Your task to perform on an android device: read, delete, or share a saved page in the chrome app Image 0: 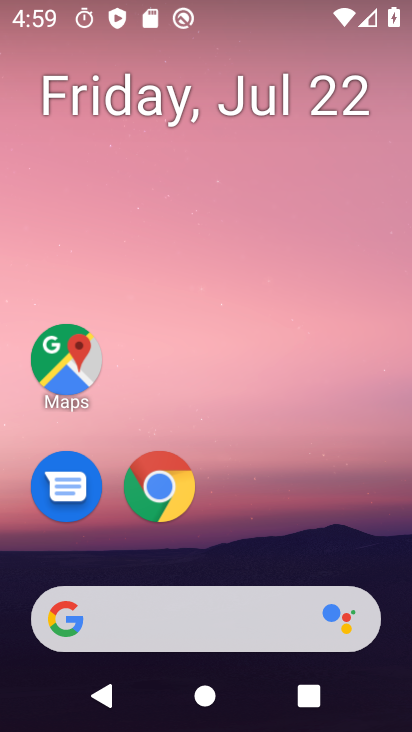
Step 0: drag from (380, 558) to (301, 129)
Your task to perform on an android device: read, delete, or share a saved page in the chrome app Image 1: 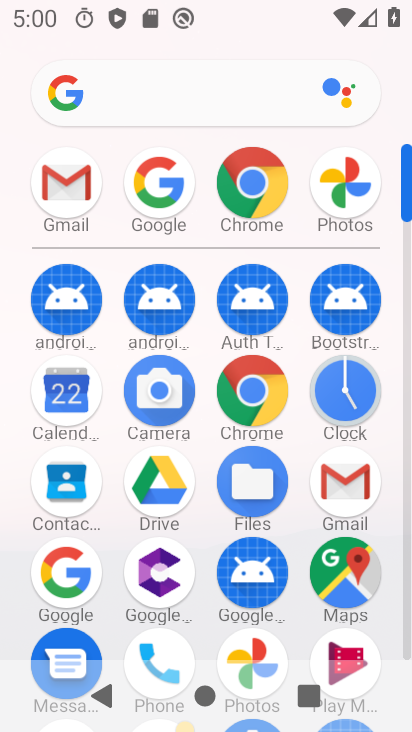
Step 1: click (272, 192)
Your task to perform on an android device: read, delete, or share a saved page in the chrome app Image 2: 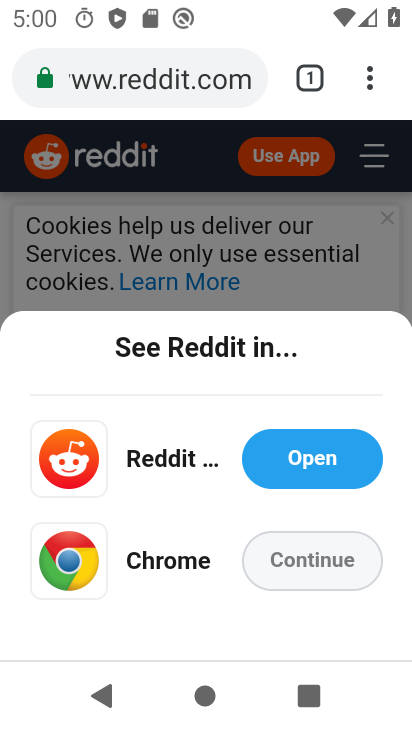
Step 2: click (366, 86)
Your task to perform on an android device: read, delete, or share a saved page in the chrome app Image 3: 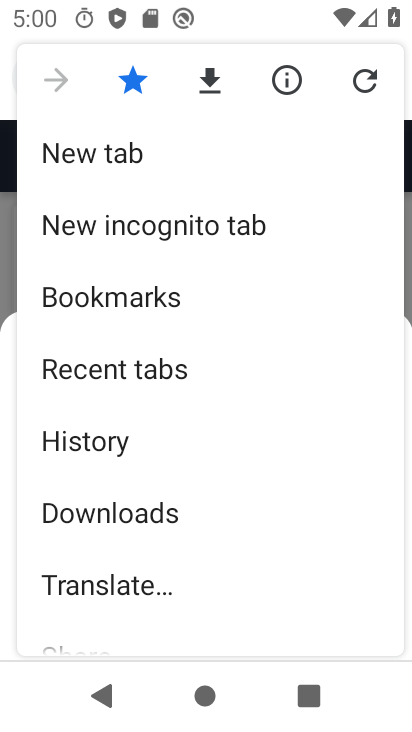
Step 3: click (118, 511)
Your task to perform on an android device: read, delete, or share a saved page in the chrome app Image 4: 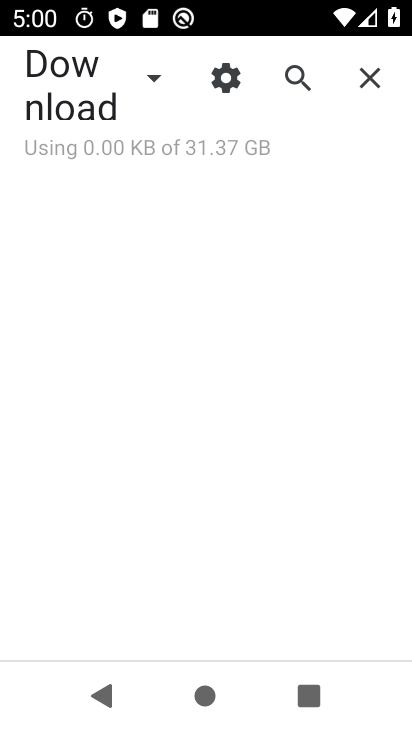
Step 4: click (152, 80)
Your task to perform on an android device: read, delete, or share a saved page in the chrome app Image 5: 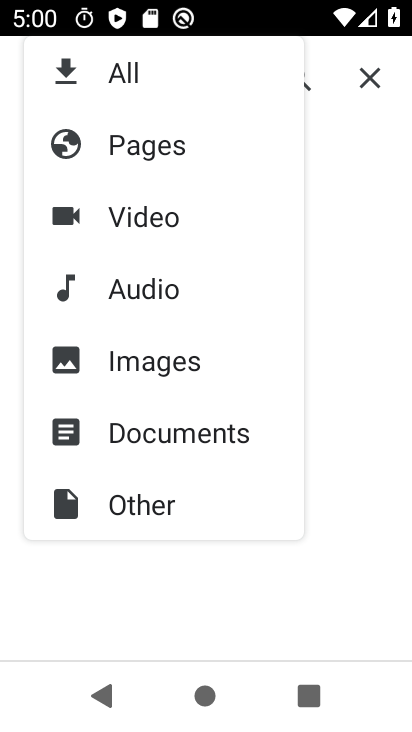
Step 5: click (180, 142)
Your task to perform on an android device: read, delete, or share a saved page in the chrome app Image 6: 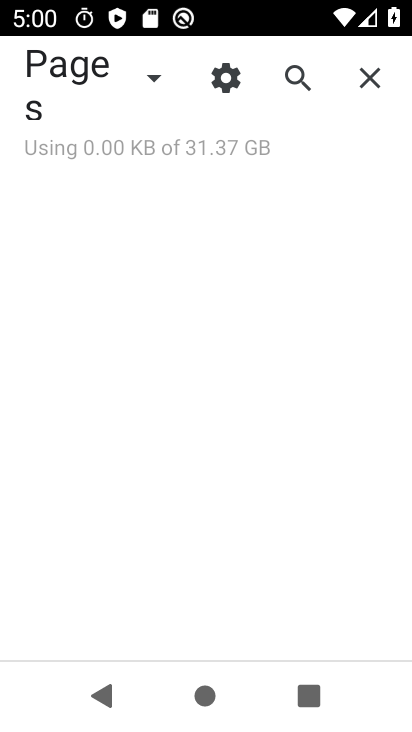
Step 6: task complete